Your task to perform on an android device: set an alarm Image 0: 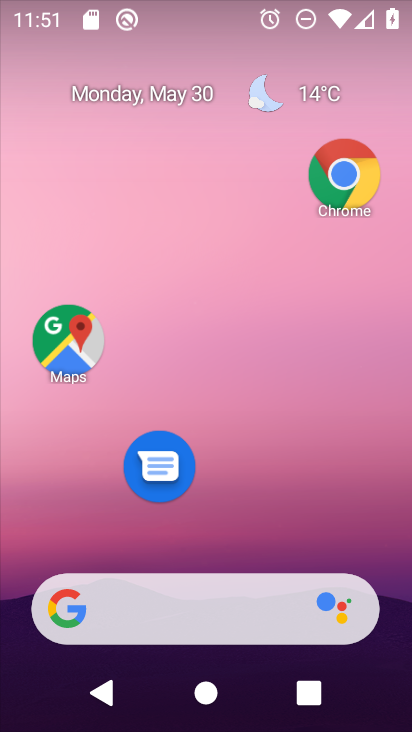
Step 0: drag from (271, 434) to (269, 184)
Your task to perform on an android device: set an alarm Image 1: 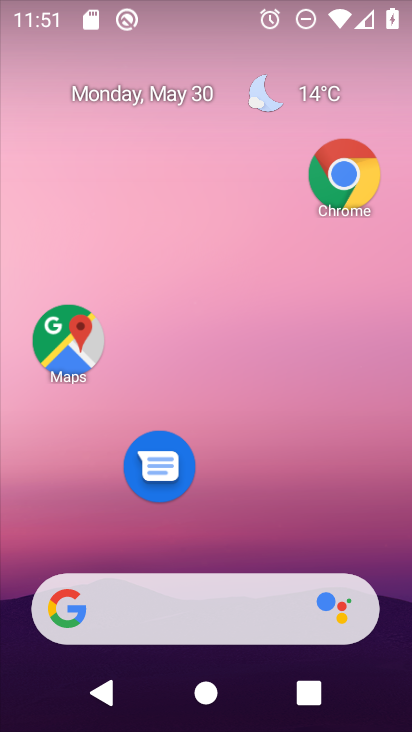
Step 1: drag from (220, 406) to (204, 0)
Your task to perform on an android device: set an alarm Image 2: 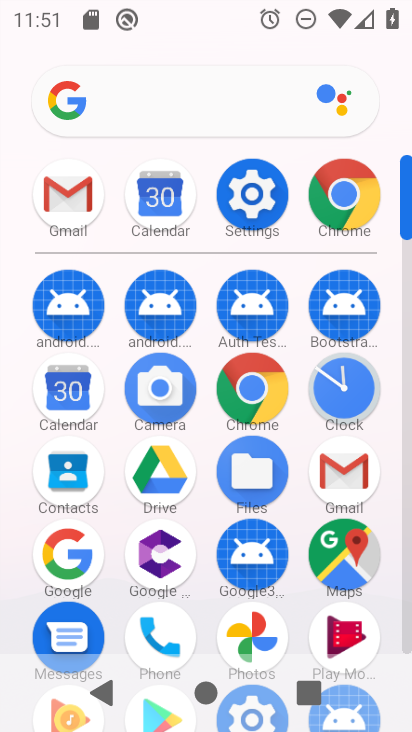
Step 2: click (351, 404)
Your task to perform on an android device: set an alarm Image 3: 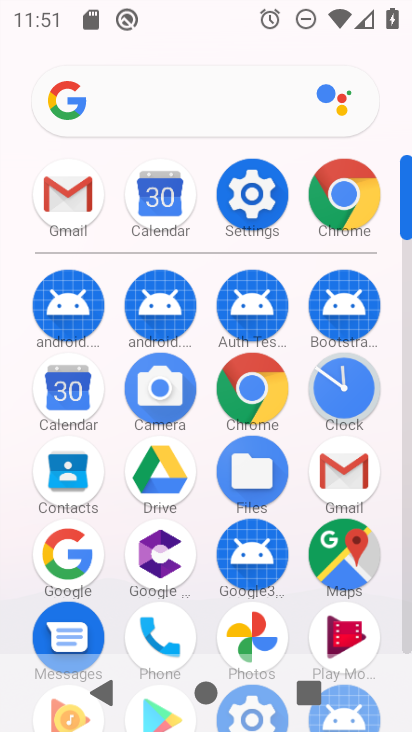
Step 3: click (351, 404)
Your task to perform on an android device: set an alarm Image 4: 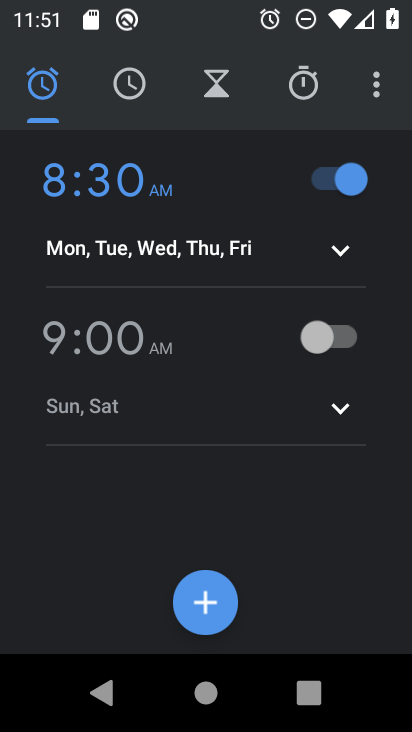
Step 4: click (329, 337)
Your task to perform on an android device: set an alarm Image 5: 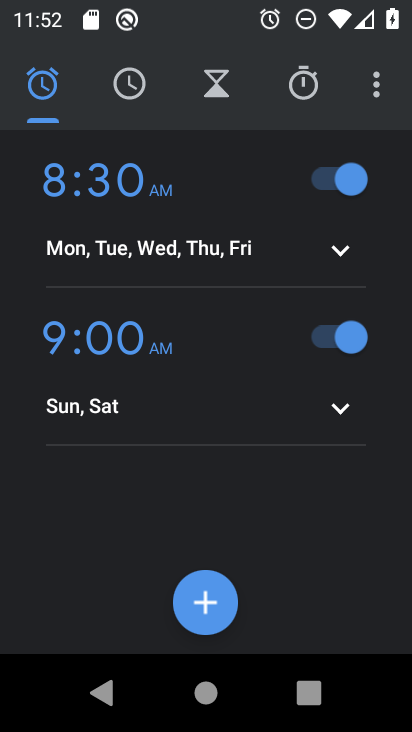
Step 5: task complete